Your task to perform on an android device: Empty the shopping cart on costco. Add apple airpods pro to the cart on costco Image 0: 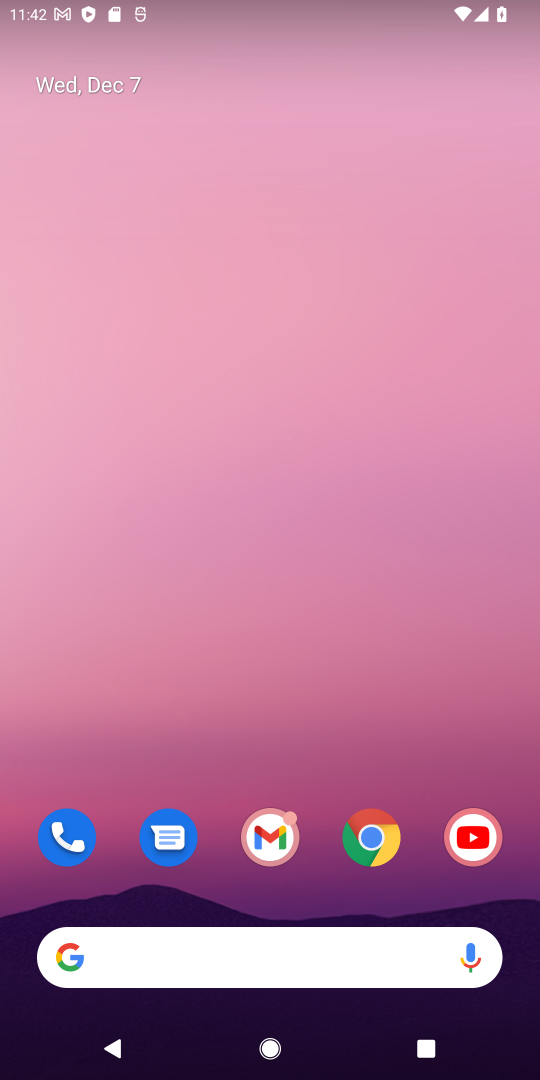
Step 0: click (378, 849)
Your task to perform on an android device: Empty the shopping cart on costco. Add apple airpods pro to the cart on costco Image 1: 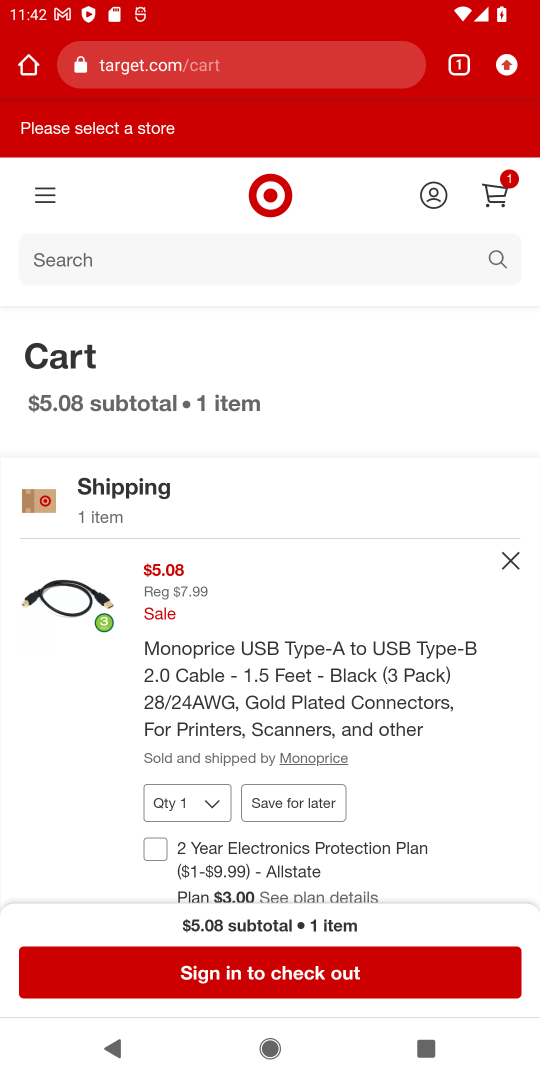
Step 1: click (246, 54)
Your task to perform on an android device: Empty the shopping cart on costco. Add apple airpods pro to the cart on costco Image 2: 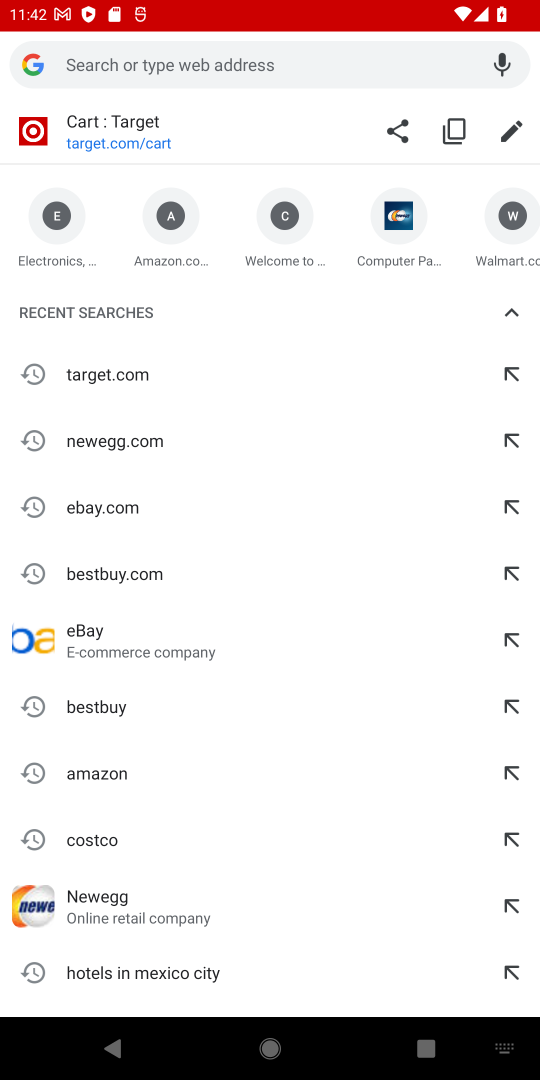
Step 2: type "costco"
Your task to perform on an android device: Empty the shopping cart on costco. Add apple airpods pro to the cart on costco Image 3: 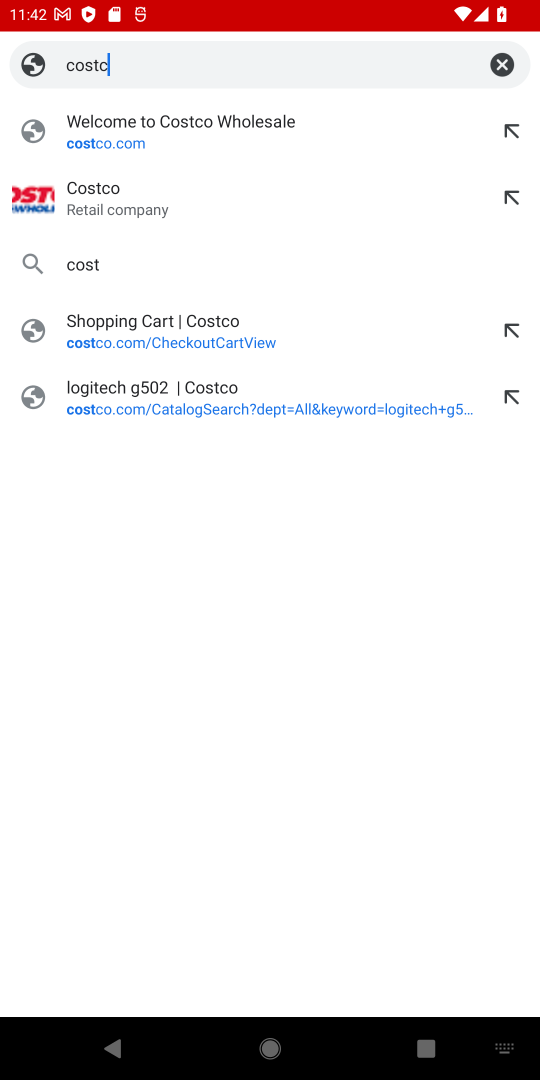
Step 3: press enter
Your task to perform on an android device: Empty the shopping cart on costco. Add apple airpods pro to the cart on costco Image 4: 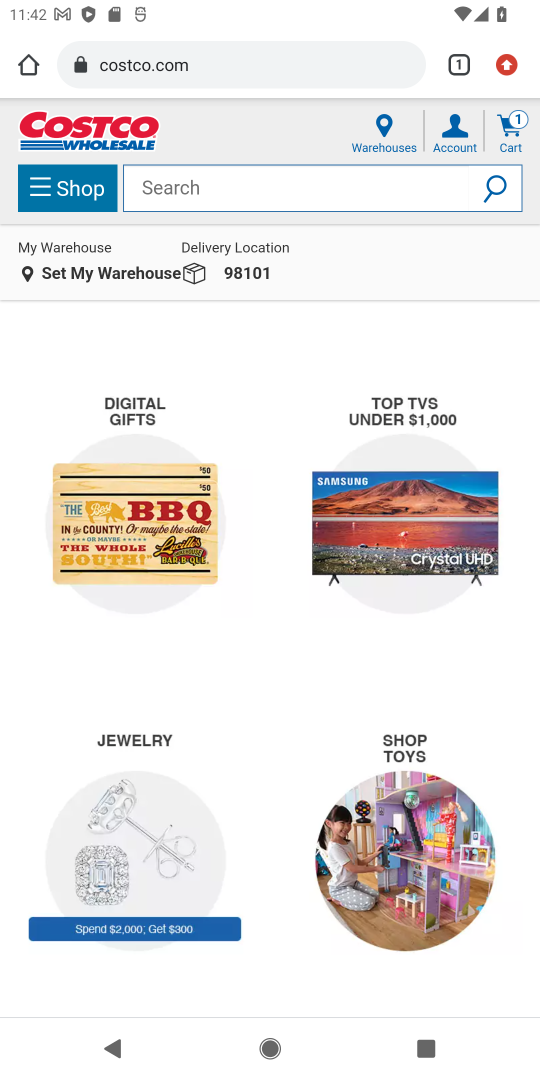
Step 4: click (523, 138)
Your task to perform on an android device: Empty the shopping cart on costco. Add apple airpods pro to the cart on costco Image 5: 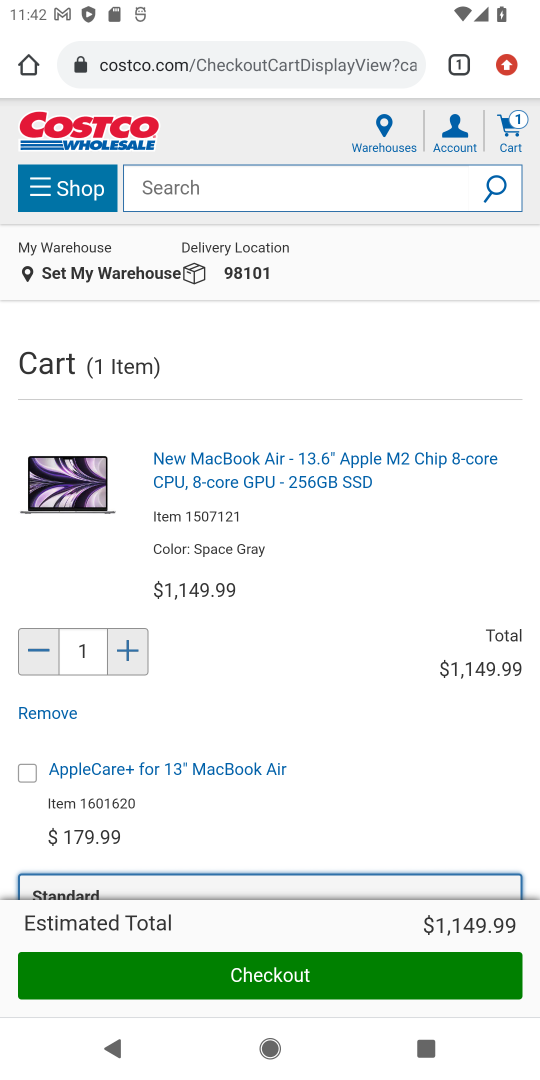
Step 5: click (53, 712)
Your task to perform on an android device: Empty the shopping cart on costco. Add apple airpods pro to the cart on costco Image 6: 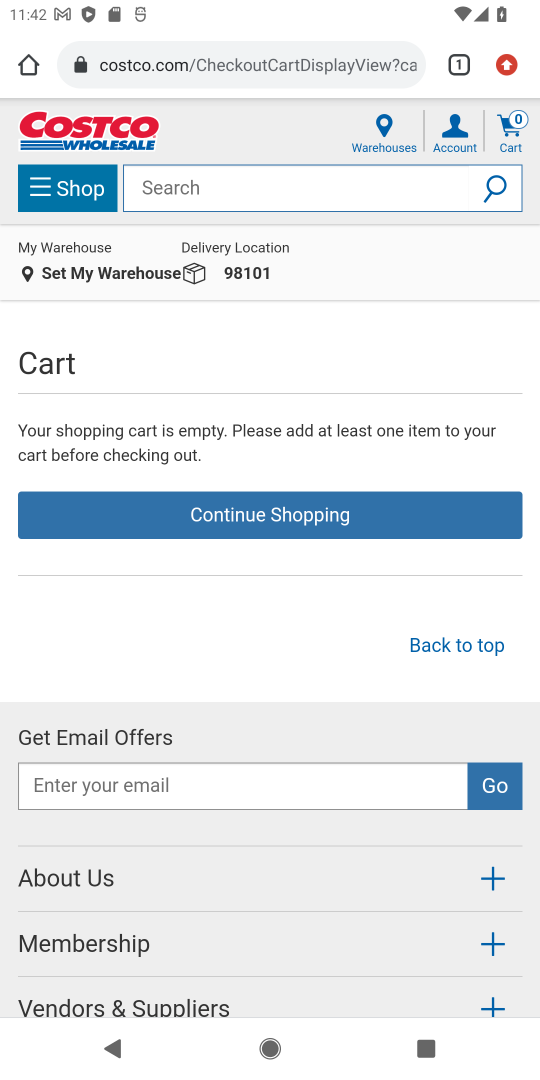
Step 6: click (332, 192)
Your task to perform on an android device: Empty the shopping cart on costco. Add apple airpods pro to the cart on costco Image 7: 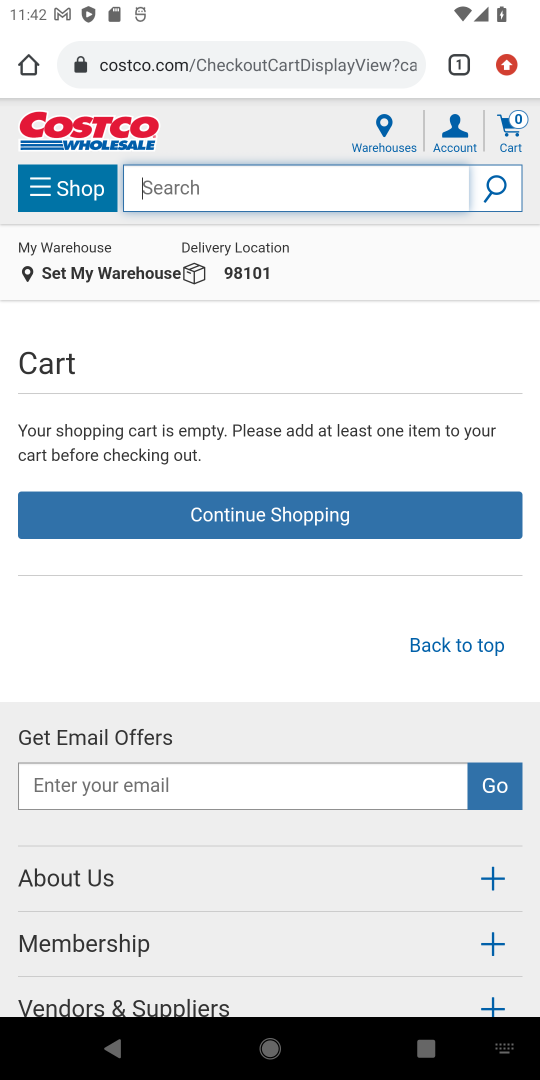
Step 7: type "apple airpods pro"
Your task to perform on an android device: Empty the shopping cart on costco. Add apple airpods pro to the cart on costco Image 8: 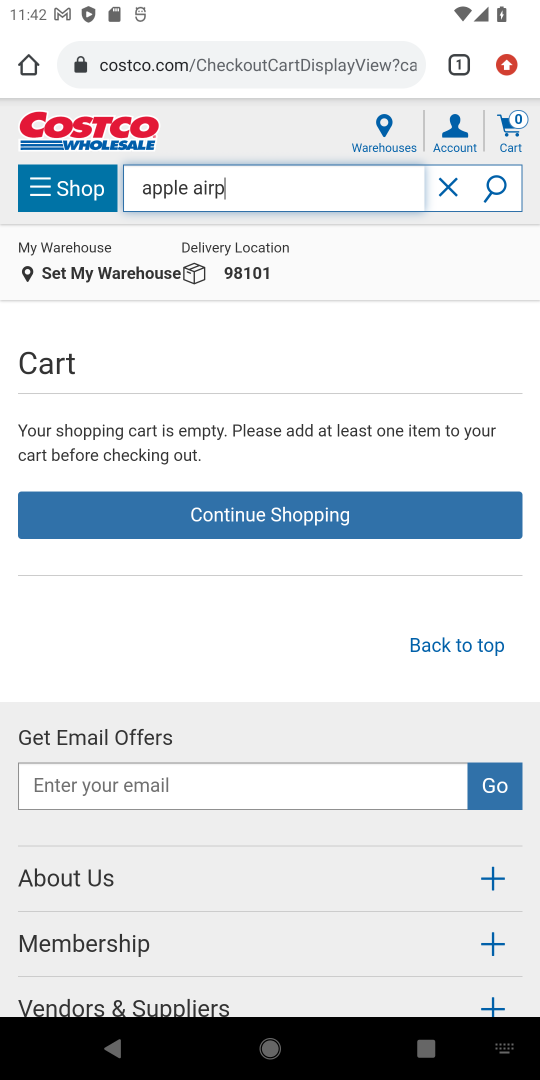
Step 8: press enter
Your task to perform on an android device: Empty the shopping cart on costco. Add apple airpods pro to the cart on costco Image 9: 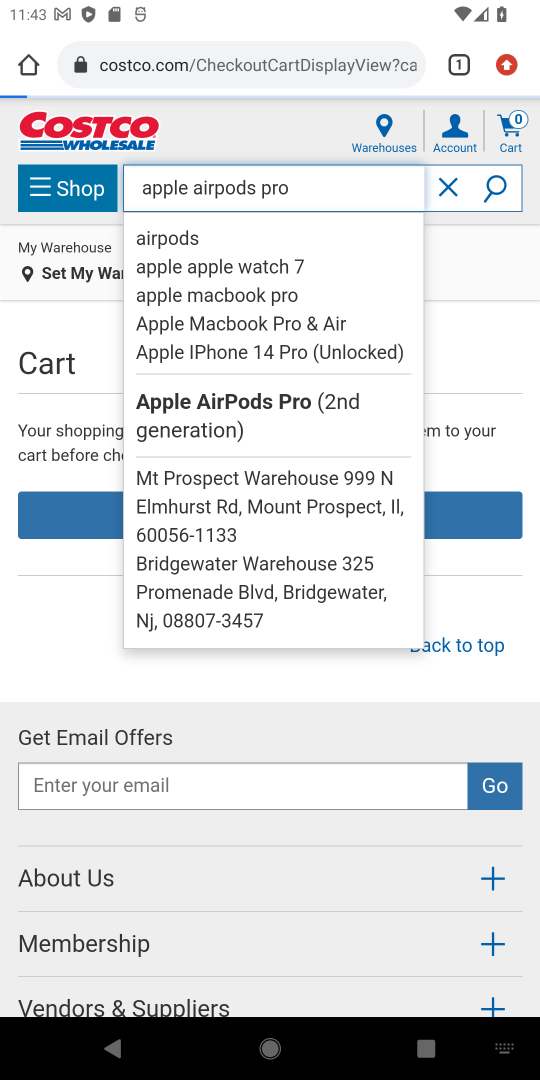
Step 9: click (495, 181)
Your task to perform on an android device: Empty the shopping cart on costco. Add apple airpods pro to the cart on costco Image 10: 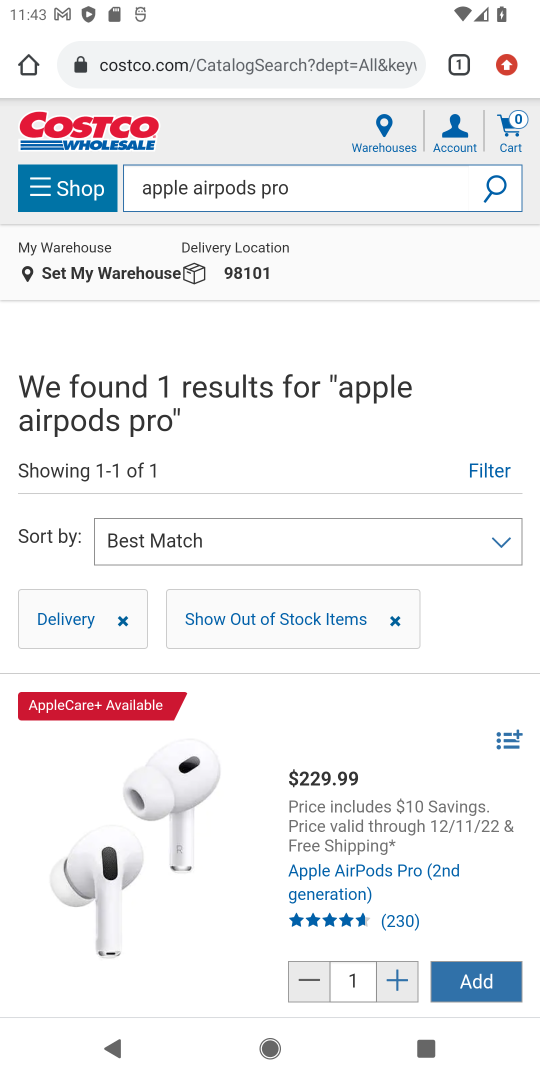
Step 10: task complete